Your task to perform on an android device: open app "Fetch Rewards" (install if not already installed) and enter user name: "Westwood@yahoo.com" and password: "qualifying" Image 0: 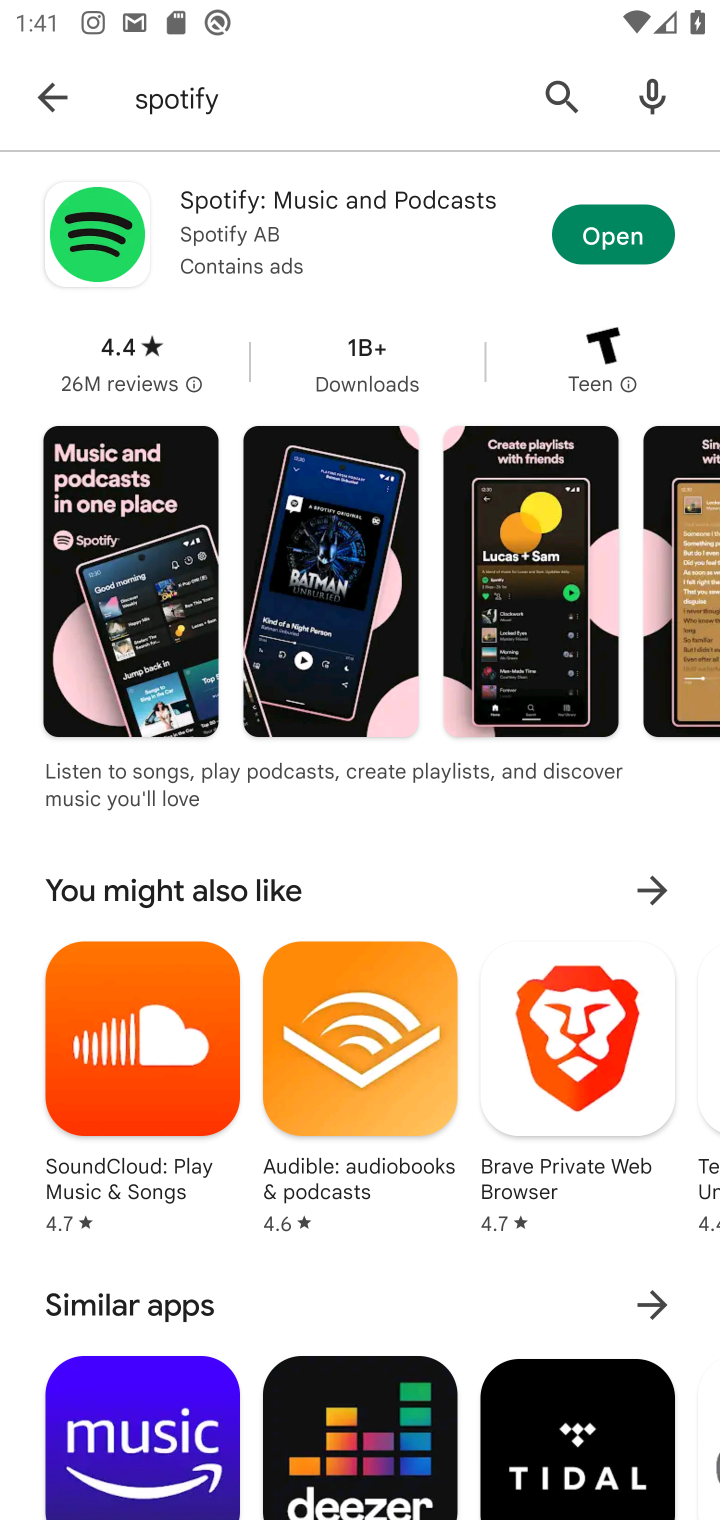
Step 0: press home button
Your task to perform on an android device: open app "Fetch Rewards" (install if not already installed) and enter user name: "Westwood@yahoo.com" and password: "qualifying" Image 1: 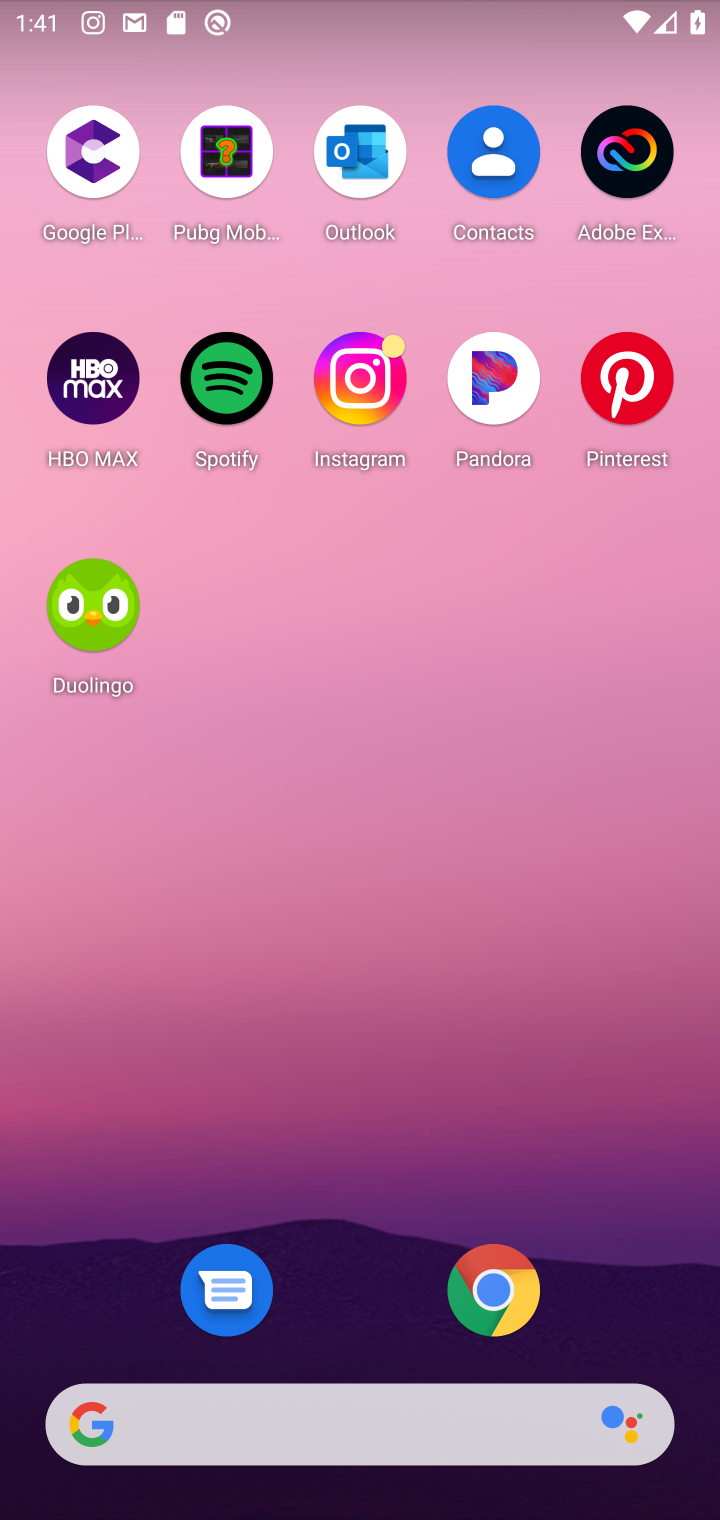
Step 1: drag from (355, 47) to (247, 143)
Your task to perform on an android device: open app "Fetch Rewards" (install if not already installed) and enter user name: "Westwood@yahoo.com" and password: "qualifying" Image 2: 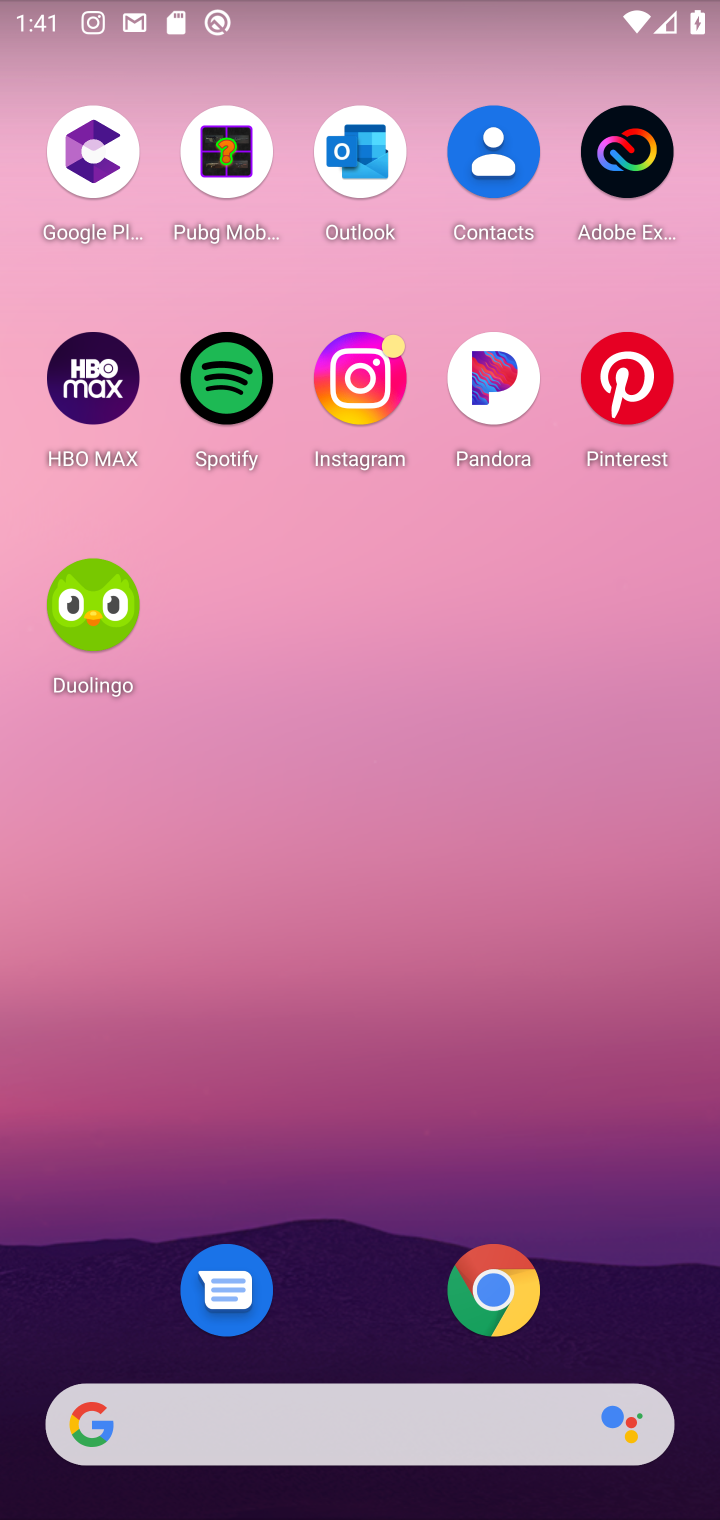
Step 2: drag from (324, 1119) to (269, 321)
Your task to perform on an android device: open app "Fetch Rewards" (install if not already installed) and enter user name: "Westwood@yahoo.com" and password: "qualifying" Image 3: 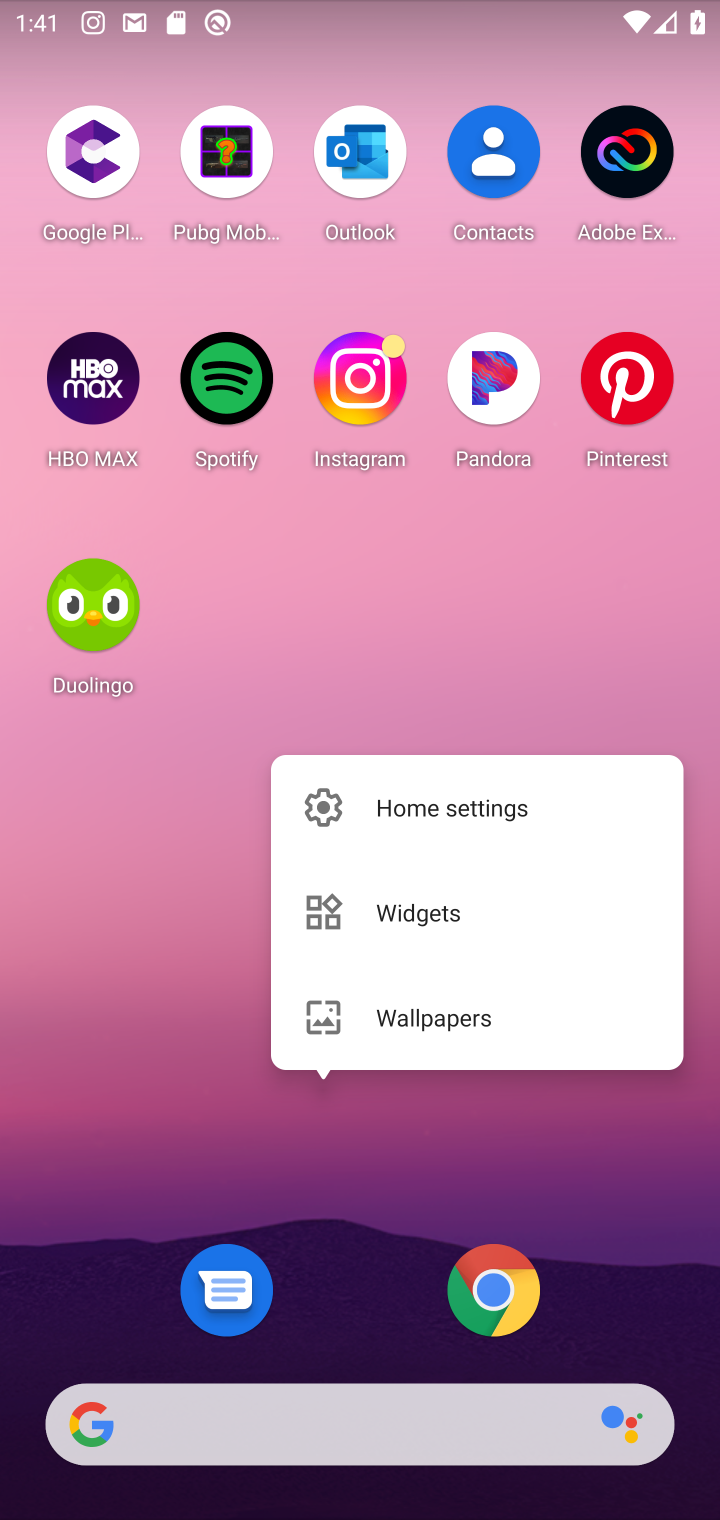
Step 3: click (329, 1276)
Your task to perform on an android device: open app "Fetch Rewards" (install if not already installed) and enter user name: "Westwood@yahoo.com" and password: "qualifying" Image 4: 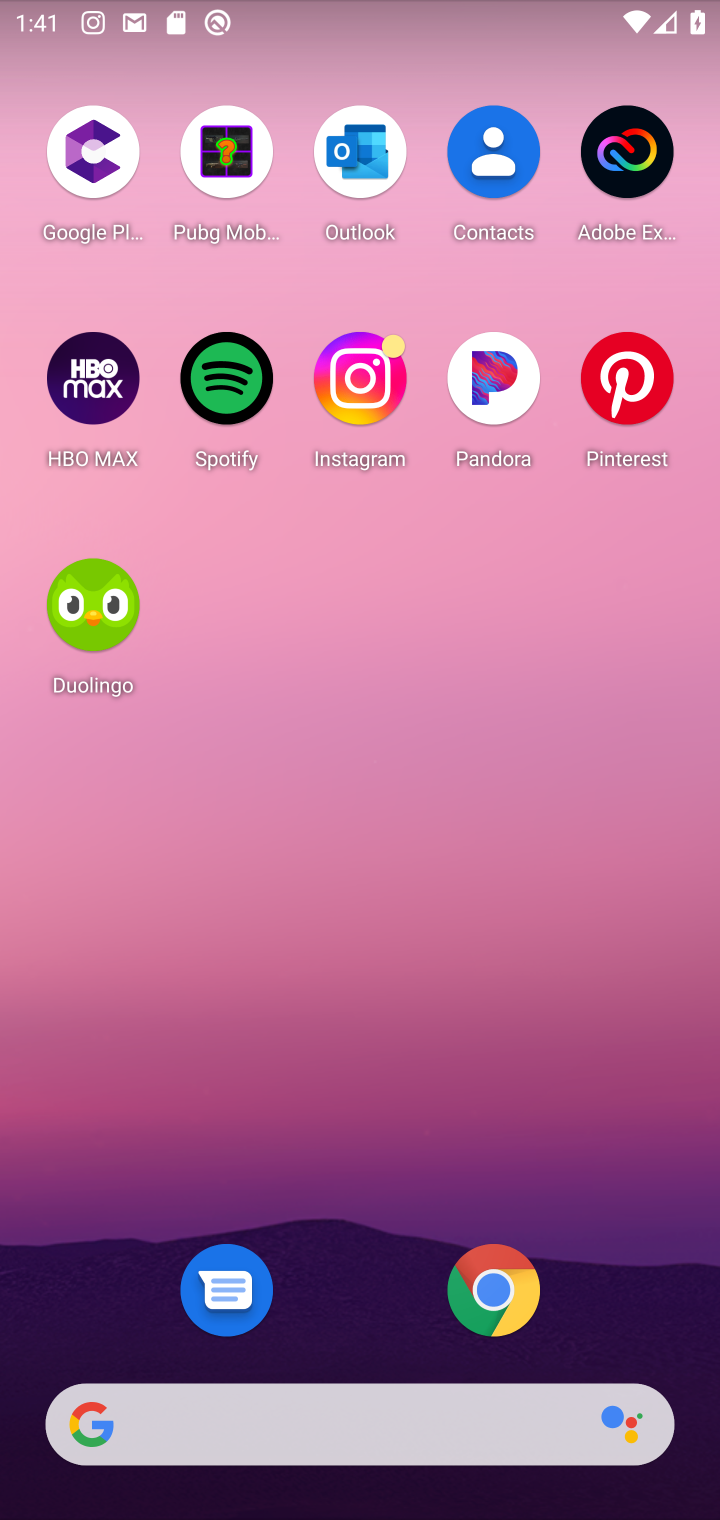
Step 4: click (236, 49)
Your task to perform on an android device: open app "Fetch Rewards" (install if not already installed) and enter user name: "Westwood@yahoo.com" and password: "qualifying" Image 5: 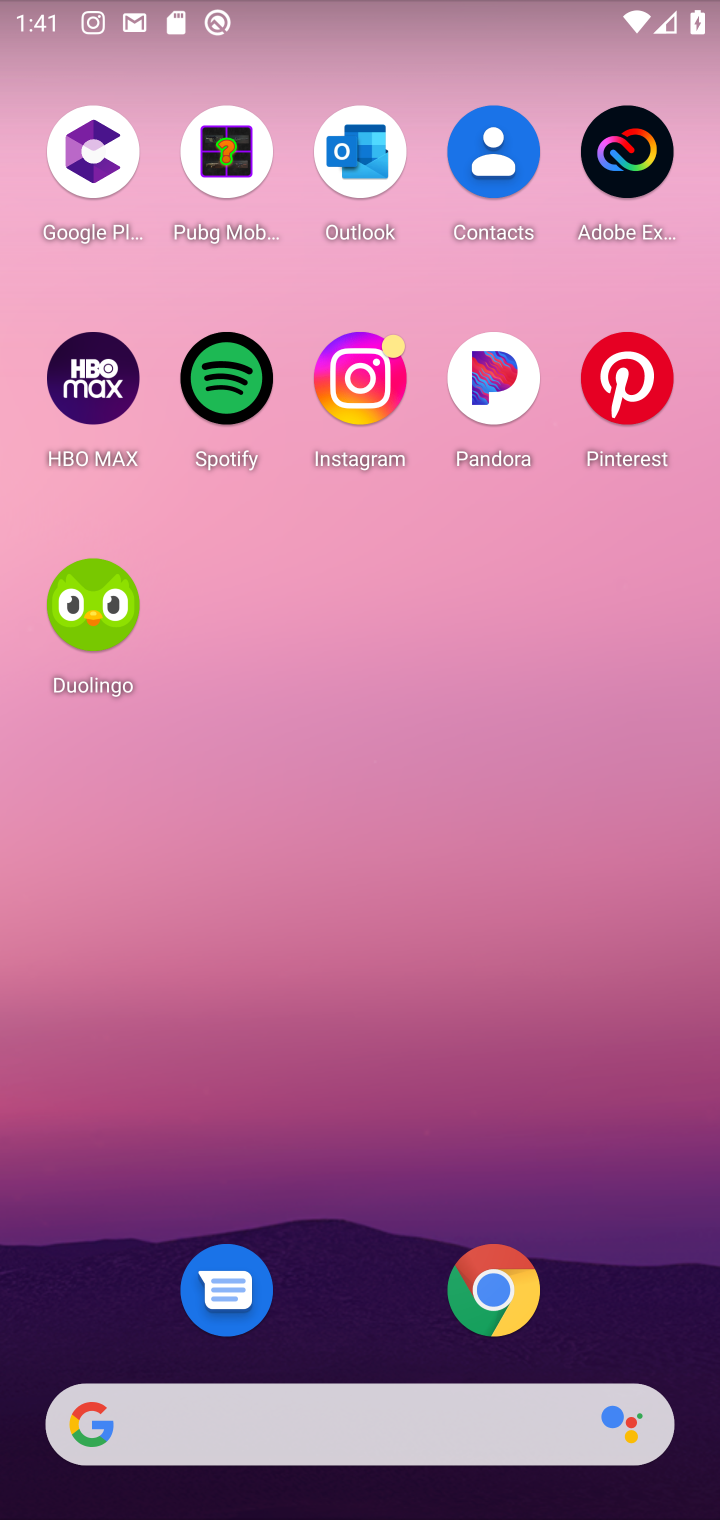
Step 5: drag from (395, 1239) to (328, 54)
Your task to perform on an android device: open app "Fetch Rewards" (install if not already installed) and enter user name: "Westwood@yahoo.com" and password: "qualifying" Image 6: 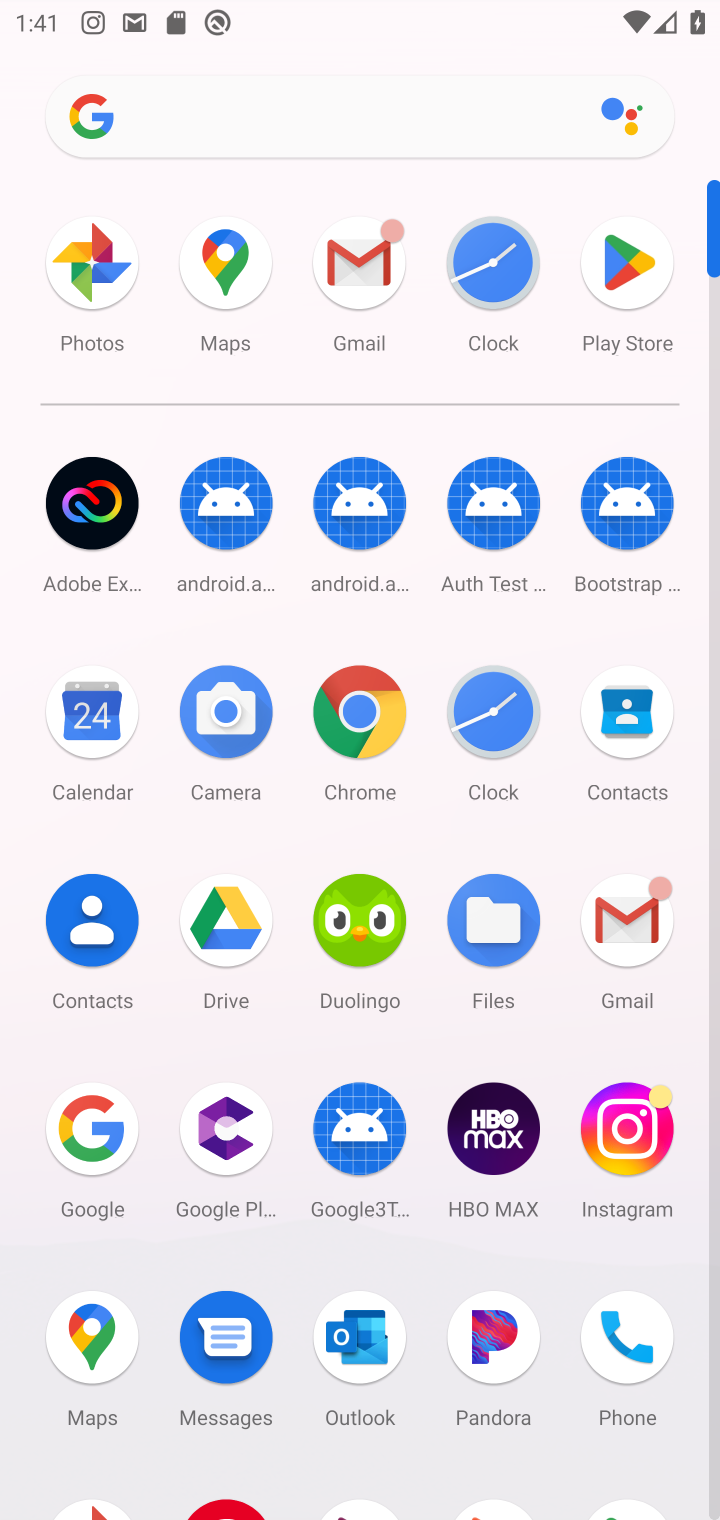
Step 6: click (637, 285)
Your task to perform on an android device: open app "Fetch Rewards" (install if not already installed) and enter user name: "Westwood@yahoo.com" and password: "qualifying" Image 7: 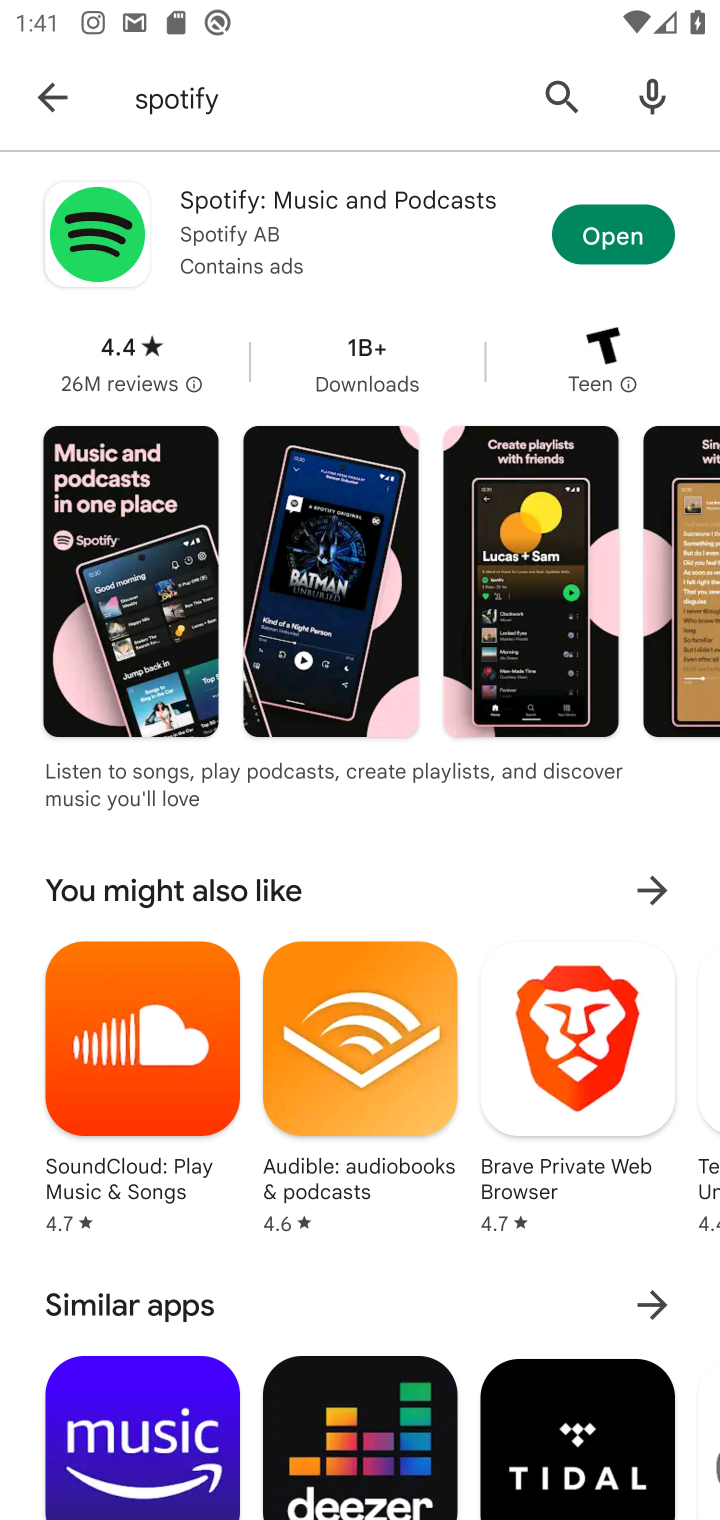
Step 7: click (57, 88)
Your task to perform on an android device: open app "Fetch Rewards" (install if not already installed) and enter user name: "Westwood@yahoo.com" and password: "qualifying" Image 8: 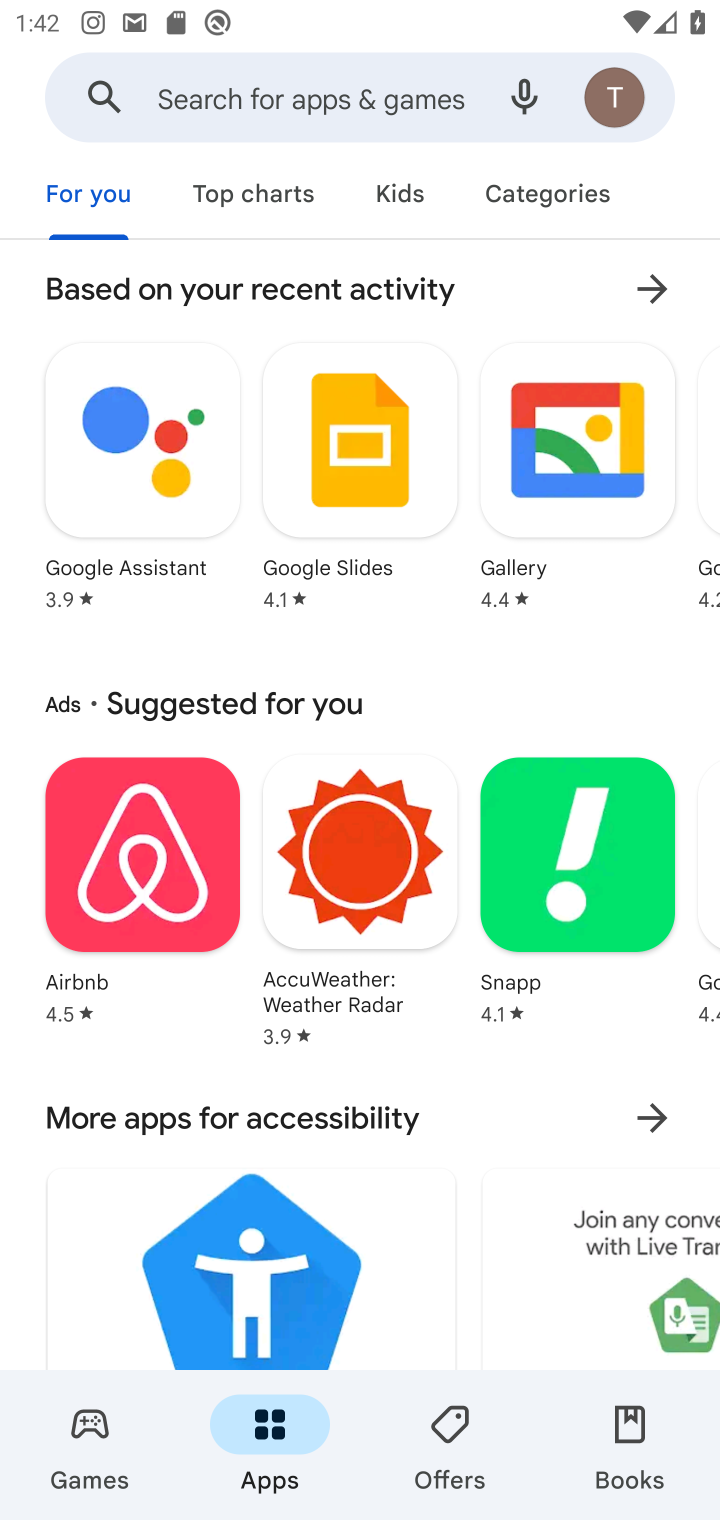
Step 8: click (273, 110)
Your task to perform on an android device: open app "Fetch Rewards" (install if not already installed) and enter user name: "Westwood@yahoo.com" and password: "qualifying" Image 9: 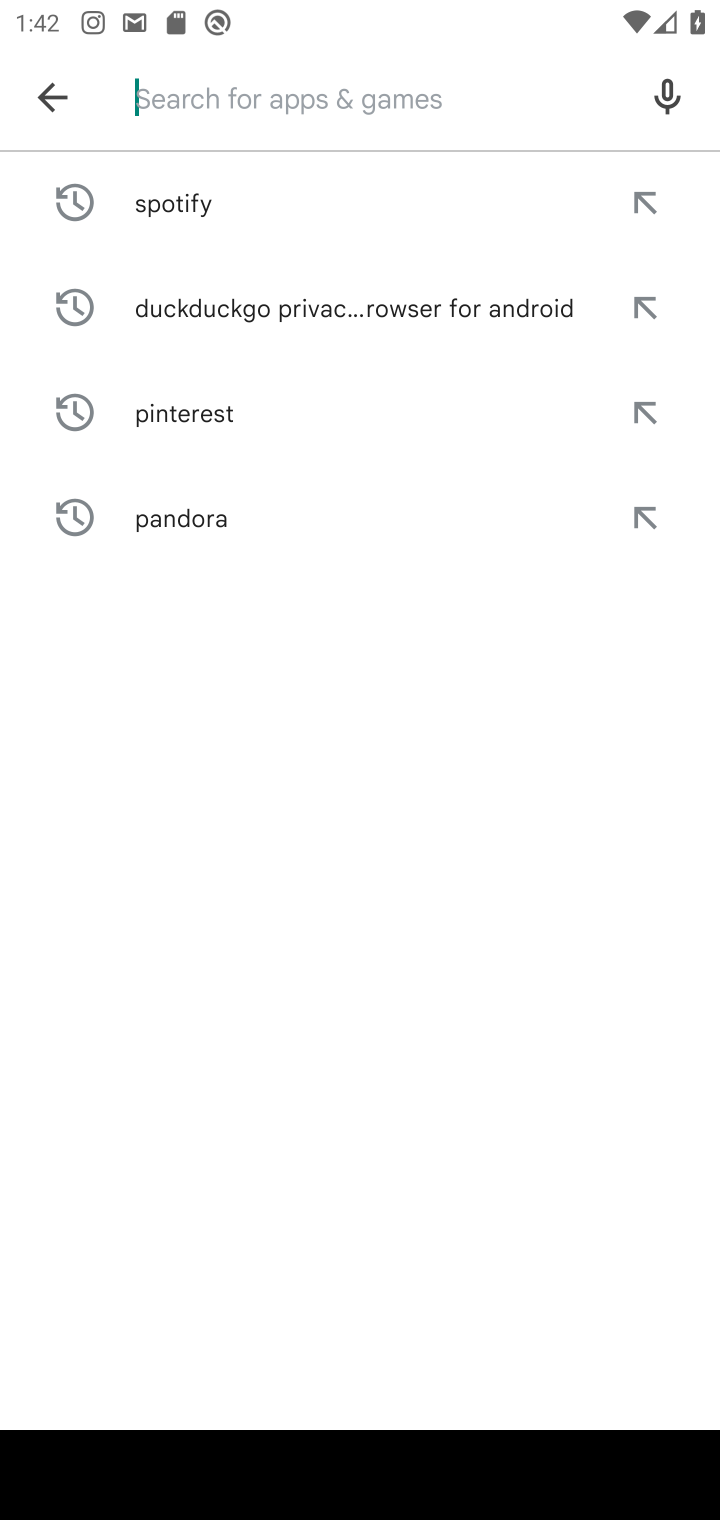
Step 9: type "Fetch Rewards"
Your task to perform on an android device: open app "Fetch Rewards" (install if not already installed) and enter user name: "Westwood@yahoo.com" and password: "qualifying" Image 10: 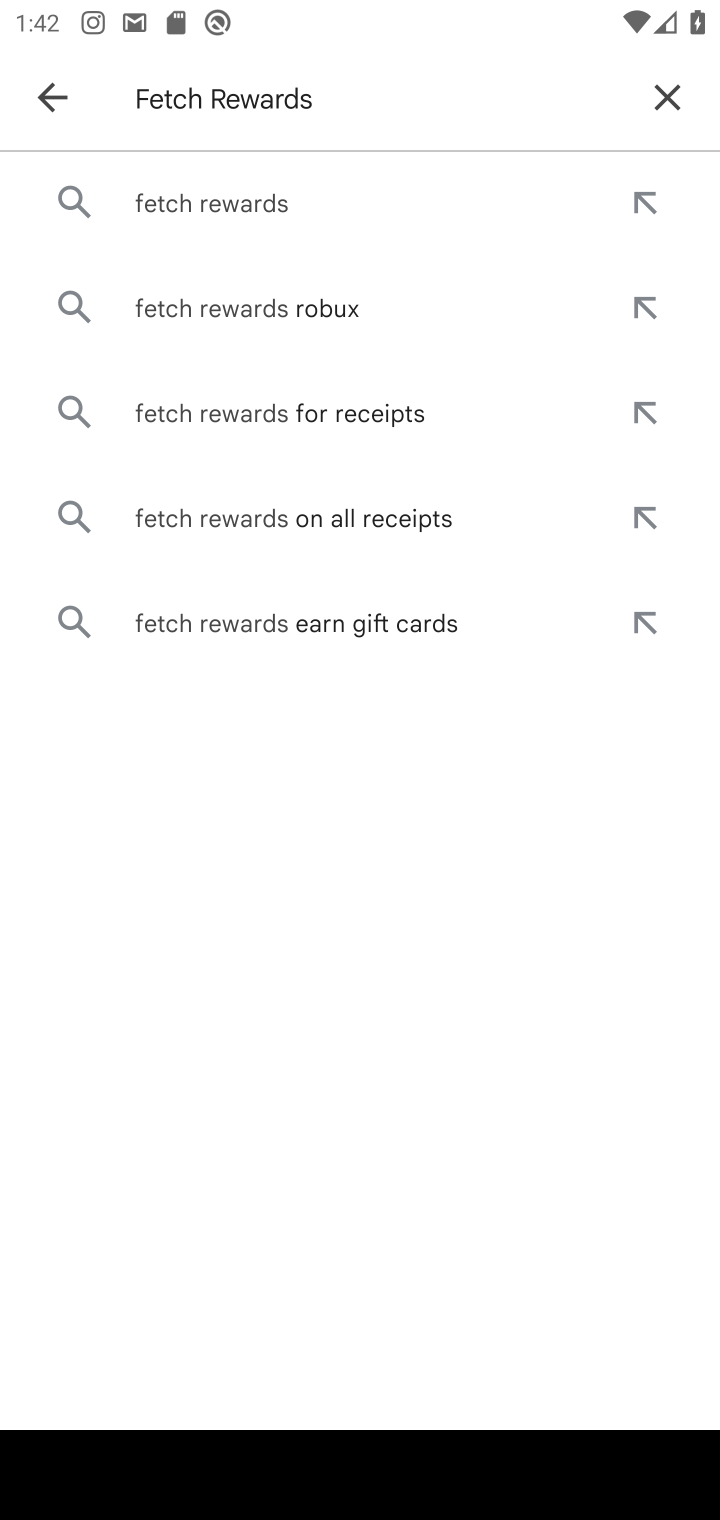
Step 10: click (280, 205)
Your task to perform on an android device: open app "Fetch Rewards" (install if not already installed) and enter user name: "Westwood@yahoo.com" and password: "qualifying" Image 11: 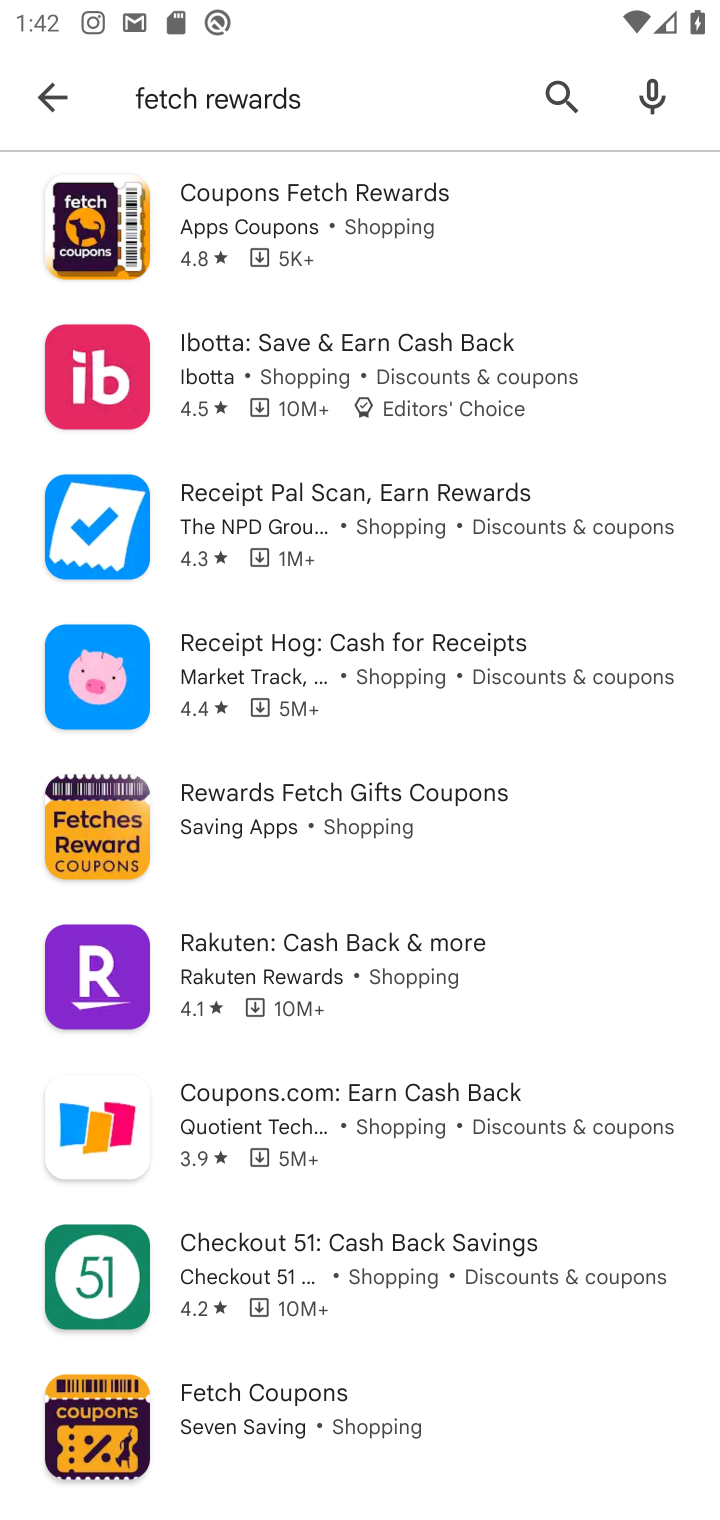
Step 11: task complete